Your task to perform on an android device: Go to Android settings Image 0: 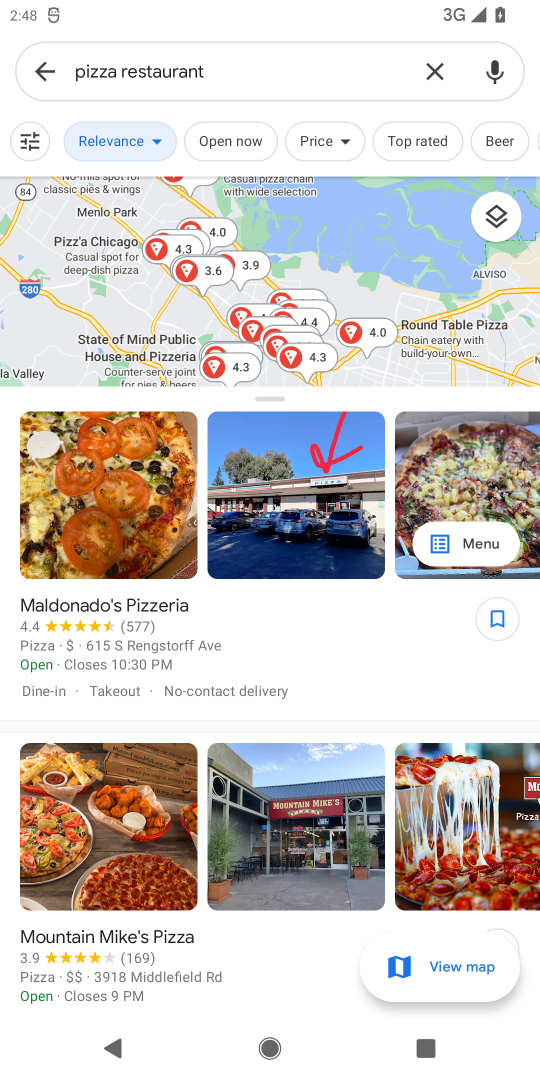
Step 0: press home button
Your task to perform on an android device: Go to Android settings Image 1: 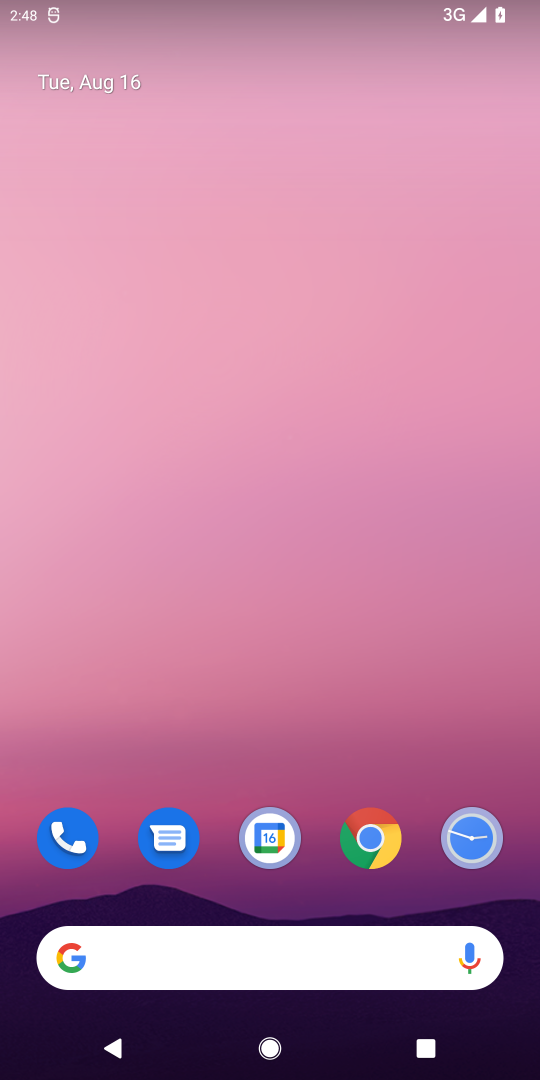
Step 1: drag from (236, 464) to (167, 13)
Your task to perform on an android device: Go to Android settings Image 2: 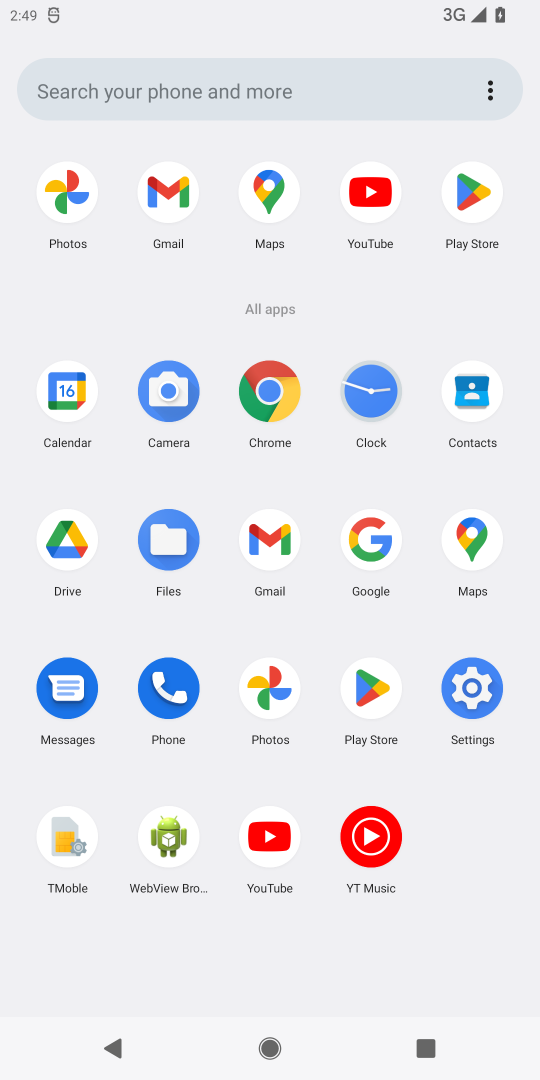
Step 2: click (465, 704)
Your task to perform on an android device: Go to Android settings Image 3: 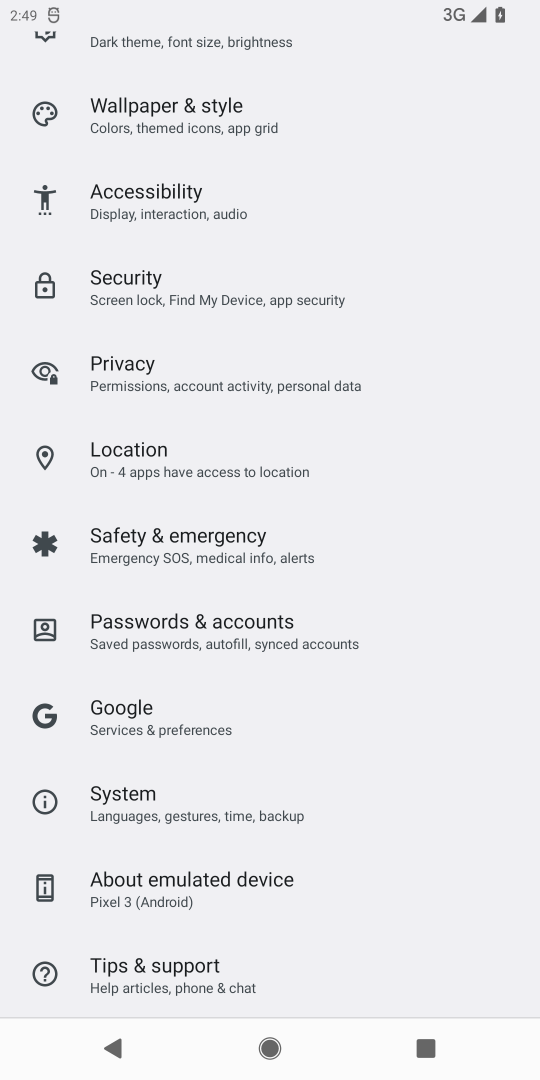
Step 3: task complete